Your task to perform on an android device: open the mobile data screen to see how much data has been used Image 0: 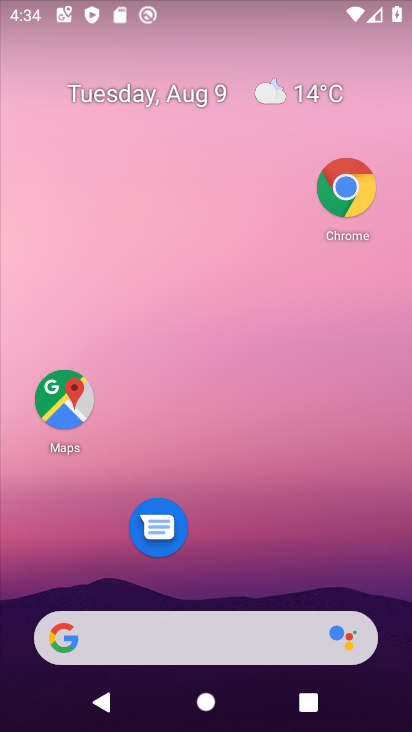
Step 0: drag from (246, 11) to (243, 608)
Your task to perform on an android device: open the mobile data screen to see how much data has been used Image 1: 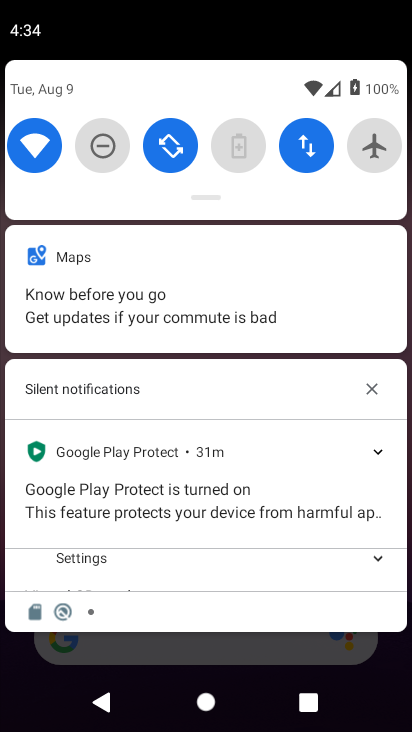
Step 1: click (311, 151)
Your task to perform on an android device: open the mobile data screen to see how much data has been used Image 2: 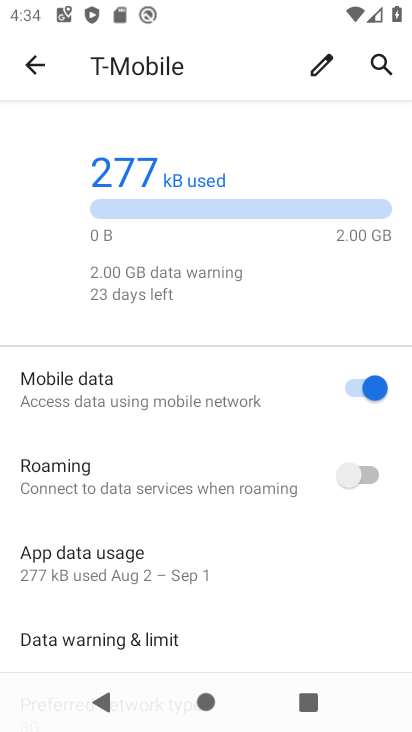
Step 2: task complete